Your task to perform on an android device: Go to privacy settings Image 0: 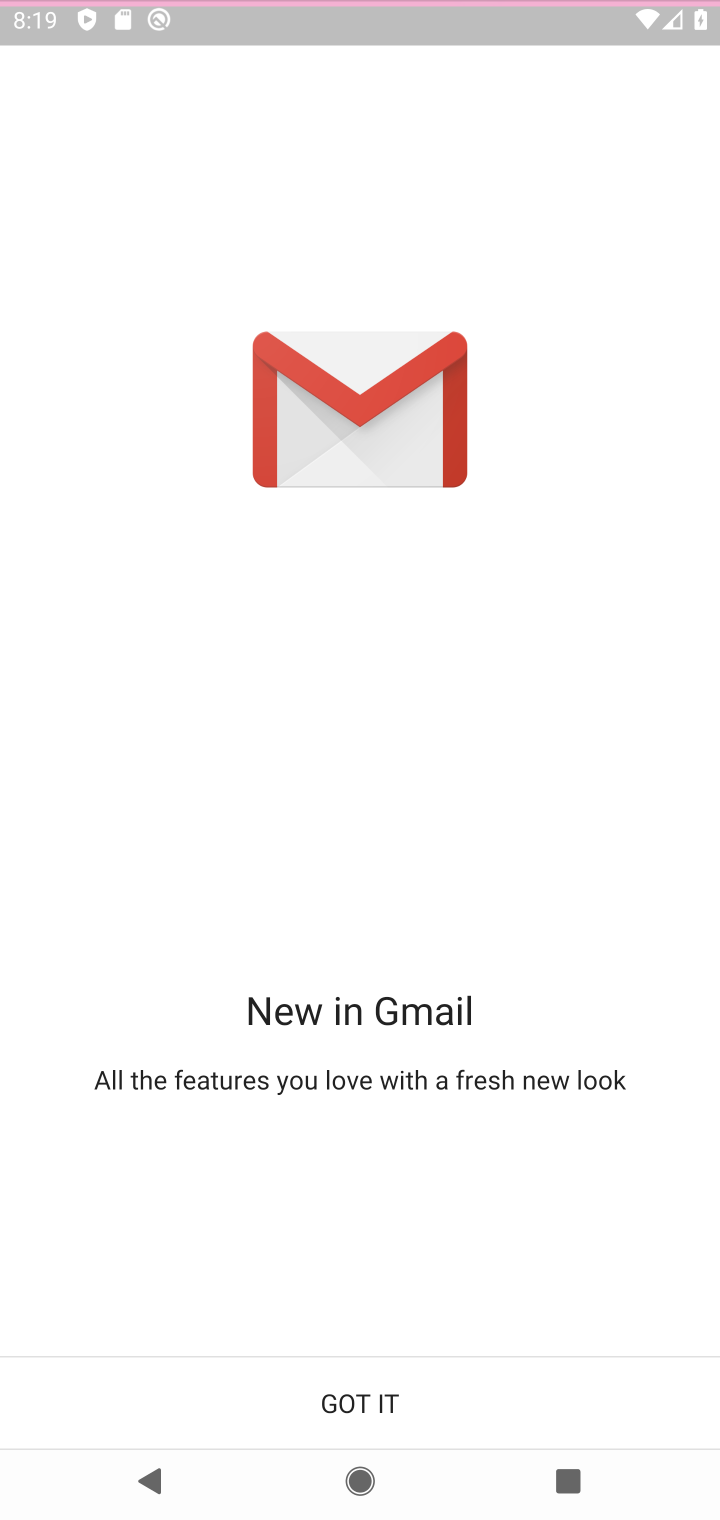
Step 0: press home button
Your task to perform on an android device: Go to privacy settings Image 1: 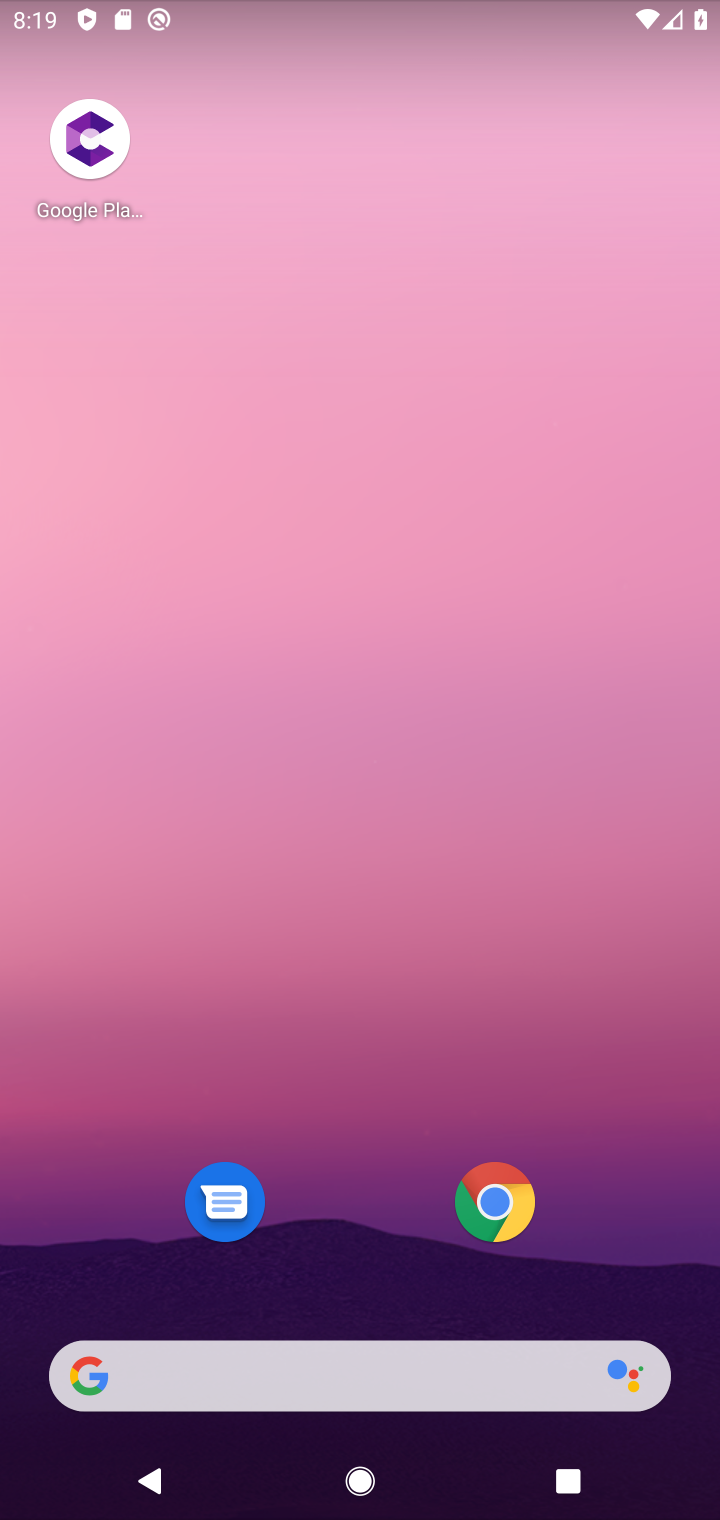
Step 1: drag from (347, 1193) to (356, 229)
Your task to perform on an android device: Go to privacy settings Image 2: 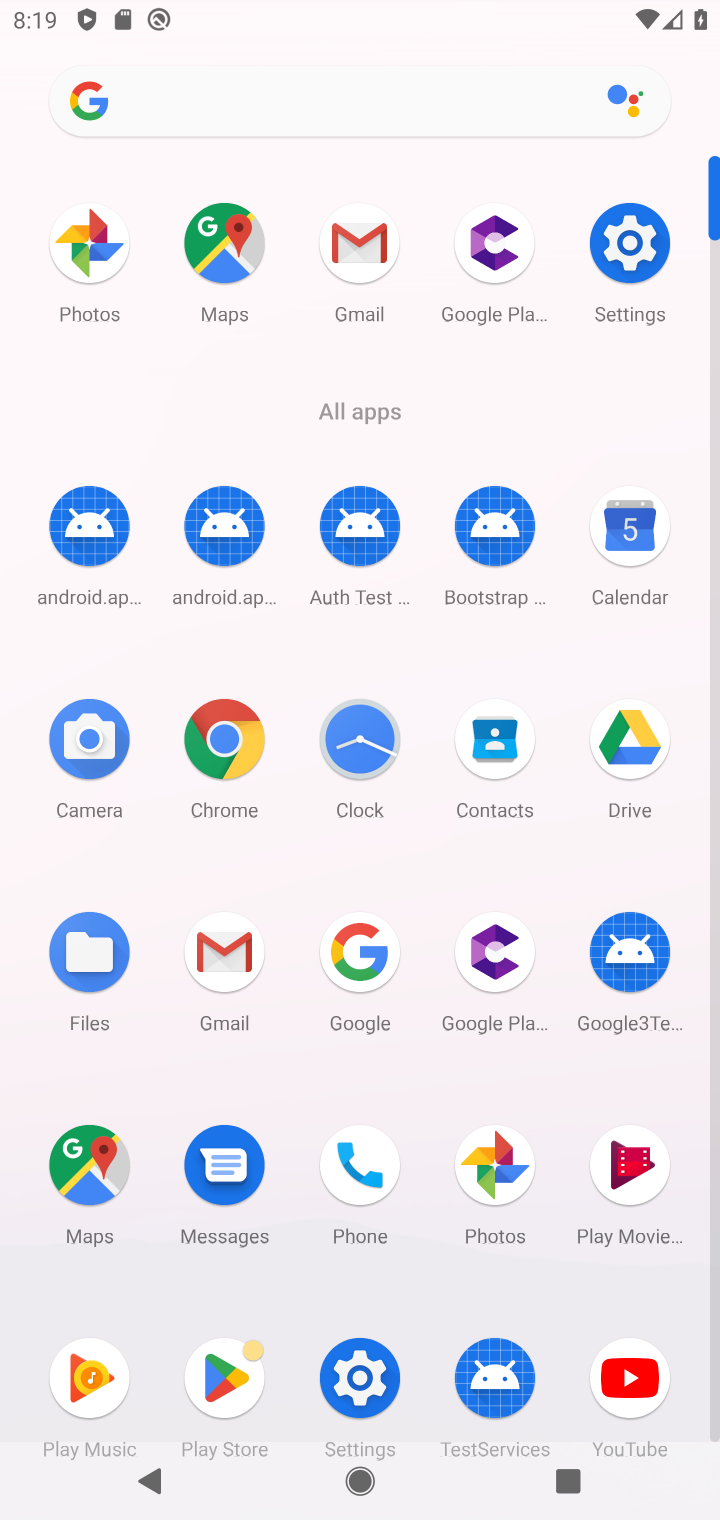
Step 2: click (605, 242)
Your task to perform on an android device: Go to privacy settings Image 3: 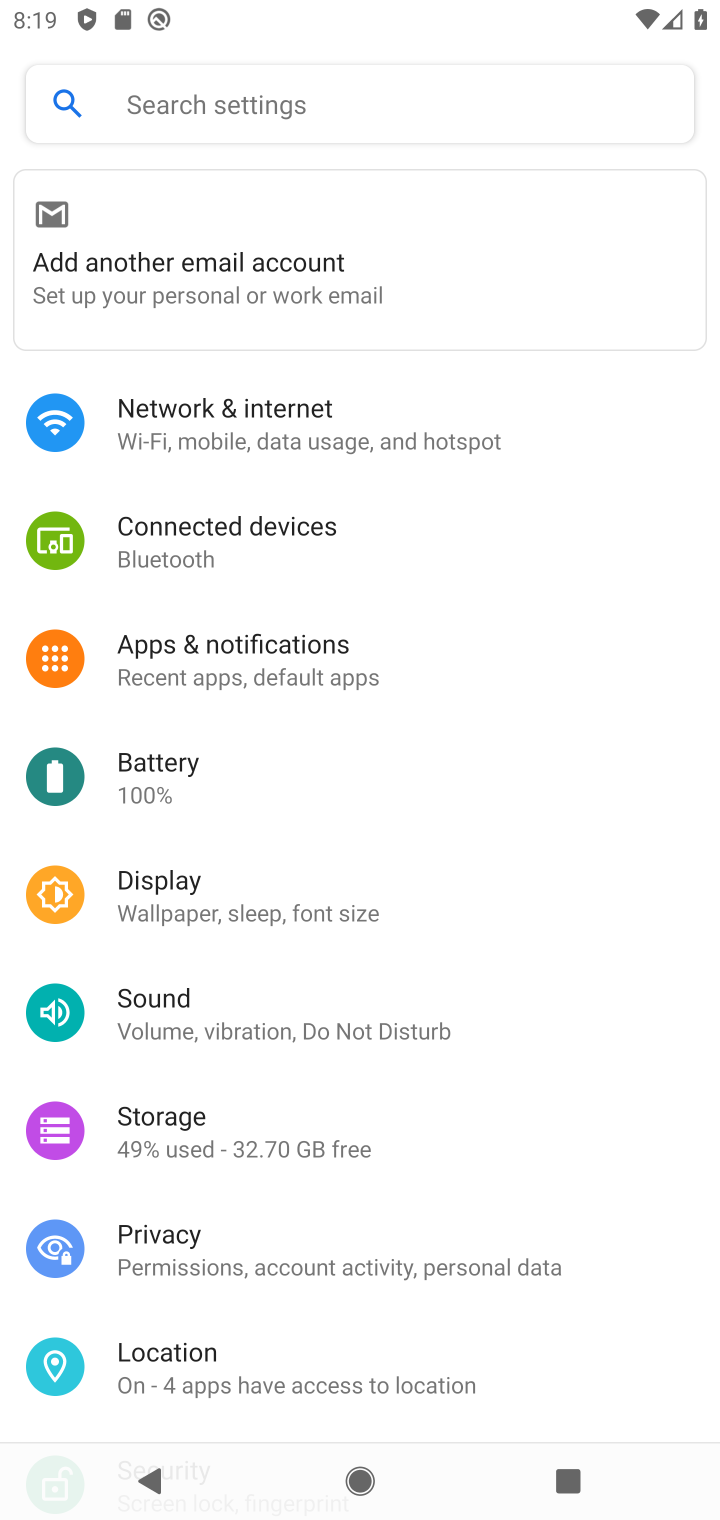
Step 3: click (241, 1247)
Your task to perform on an android device: Go to privacy settings Image 4: 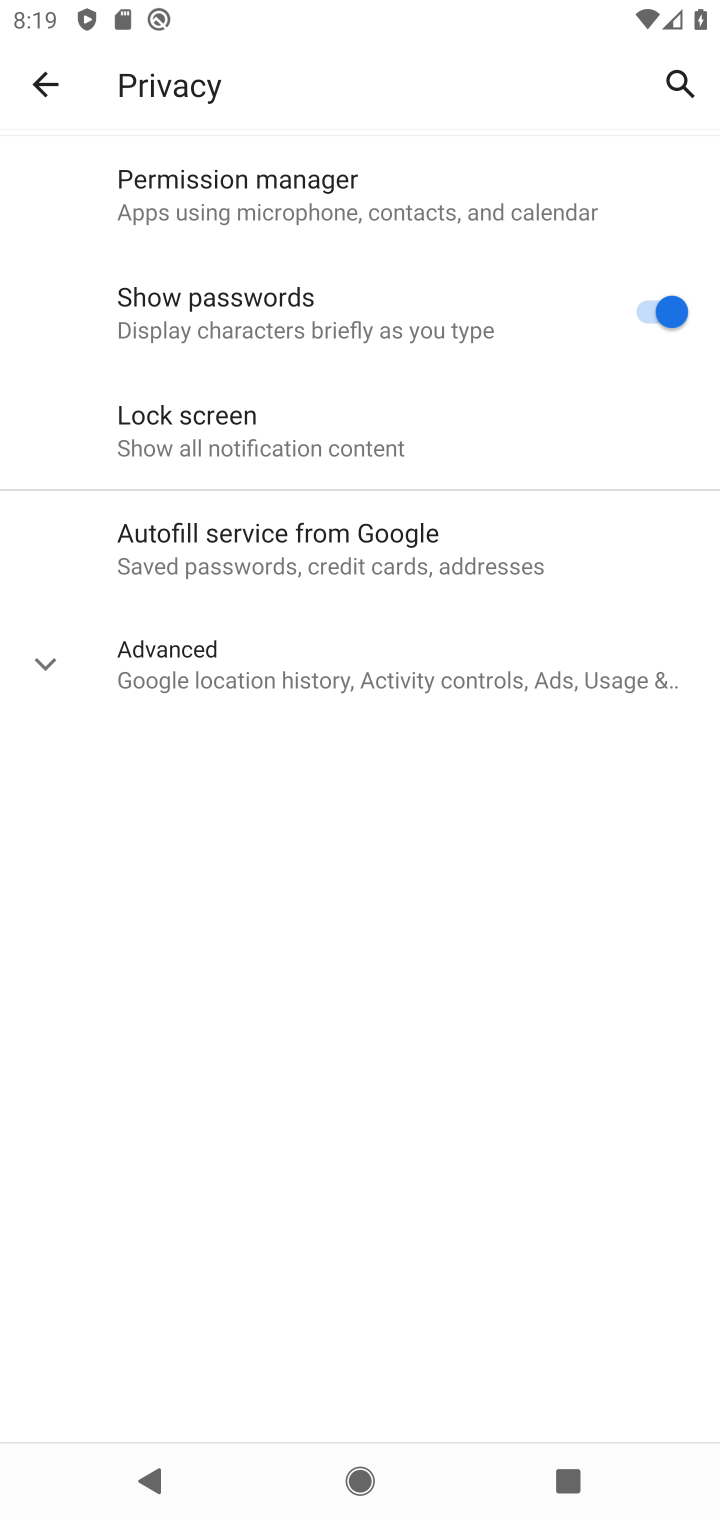
Step 4: task complete